Your task to perform on an android device: Clear the cart on walmart. Add razer deathadder to the cart on walmart, then select checkout. Image 0: 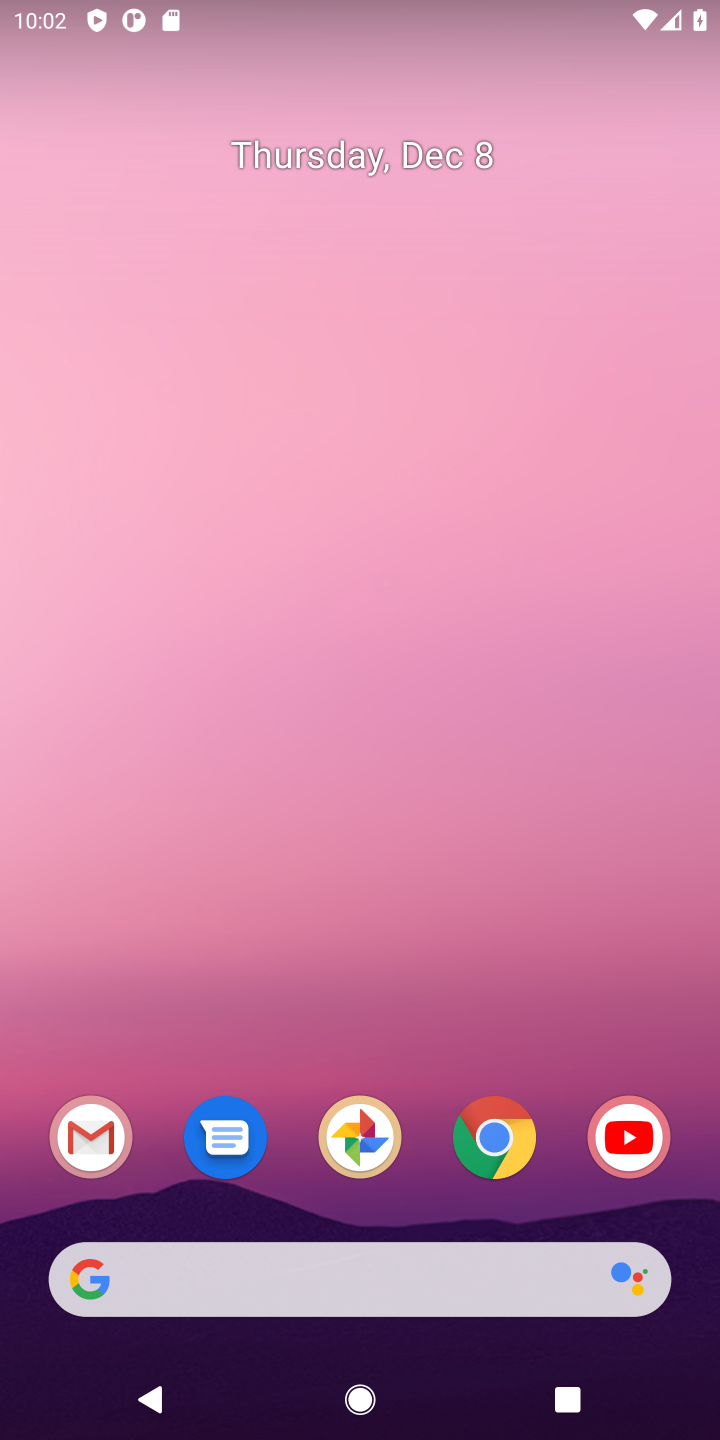
Step 0: click (494, 1135)
Your task to perform on an android device: Clear the cart on walmart. Add razer deathadder to the cart on walmart, then select checkout. Image 1: 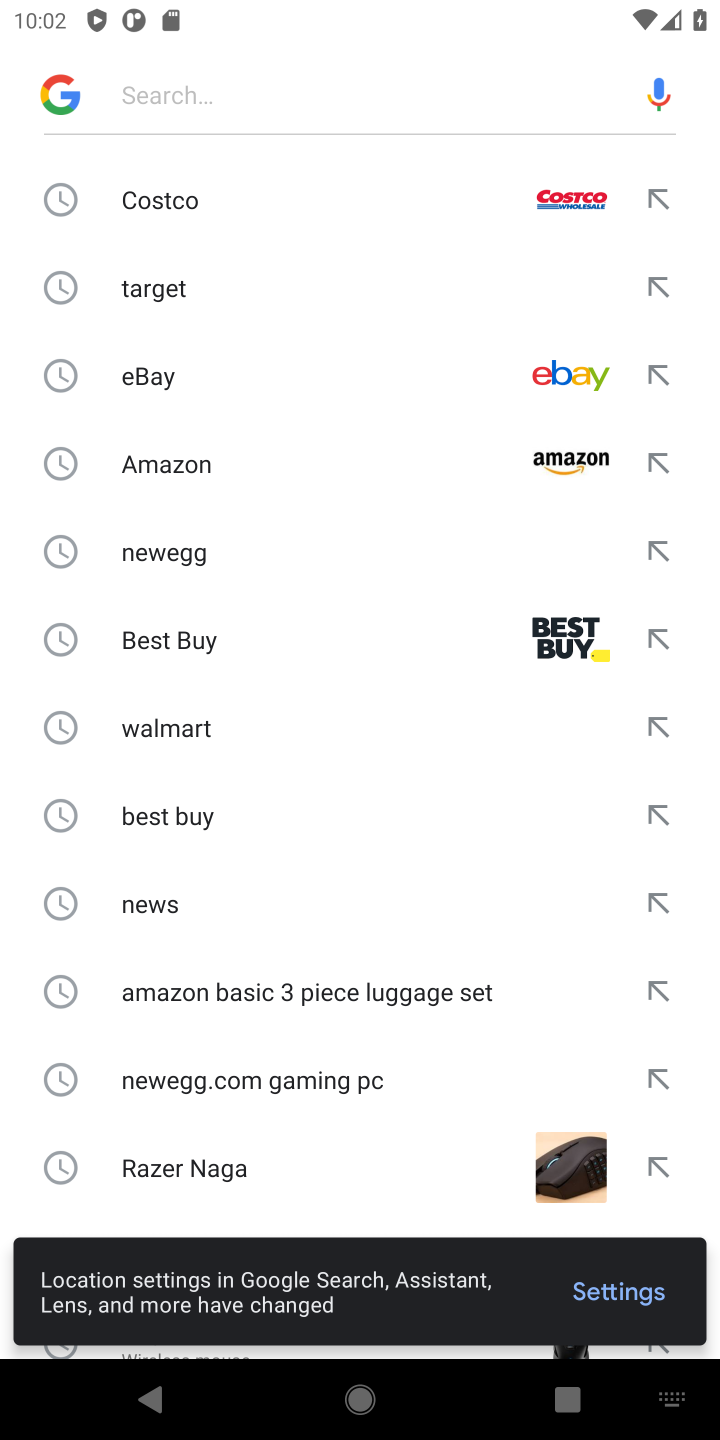
Step 1: click (183, 725)
Your task to perform on an android device: Clear the cart on walmart. Add razer deathadder to the cart on walmart, then select checkout. Image 2: 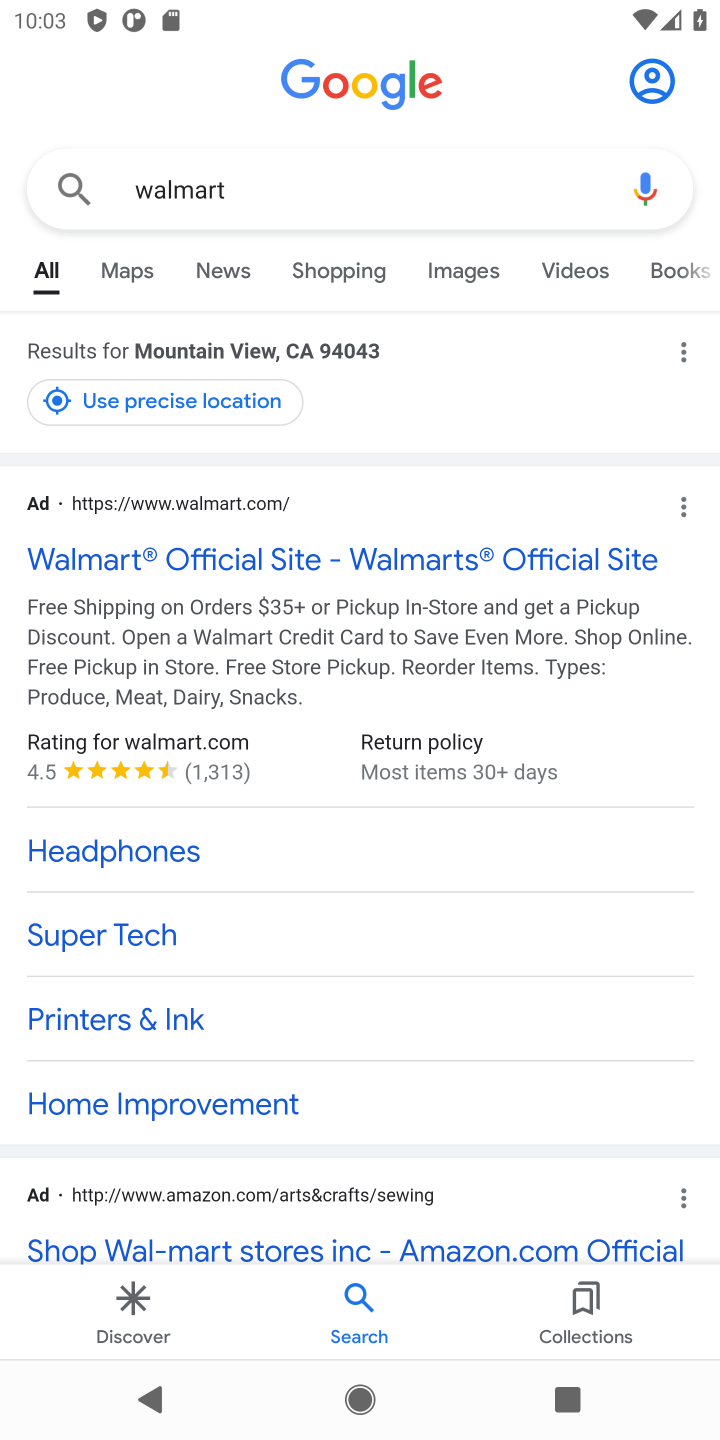
Step 2: click (146, 567)
Your task to perform on an android device: Clear the cart on walmart. Add razer deathadder to the cart on walmart, then select checkout. Image 3: 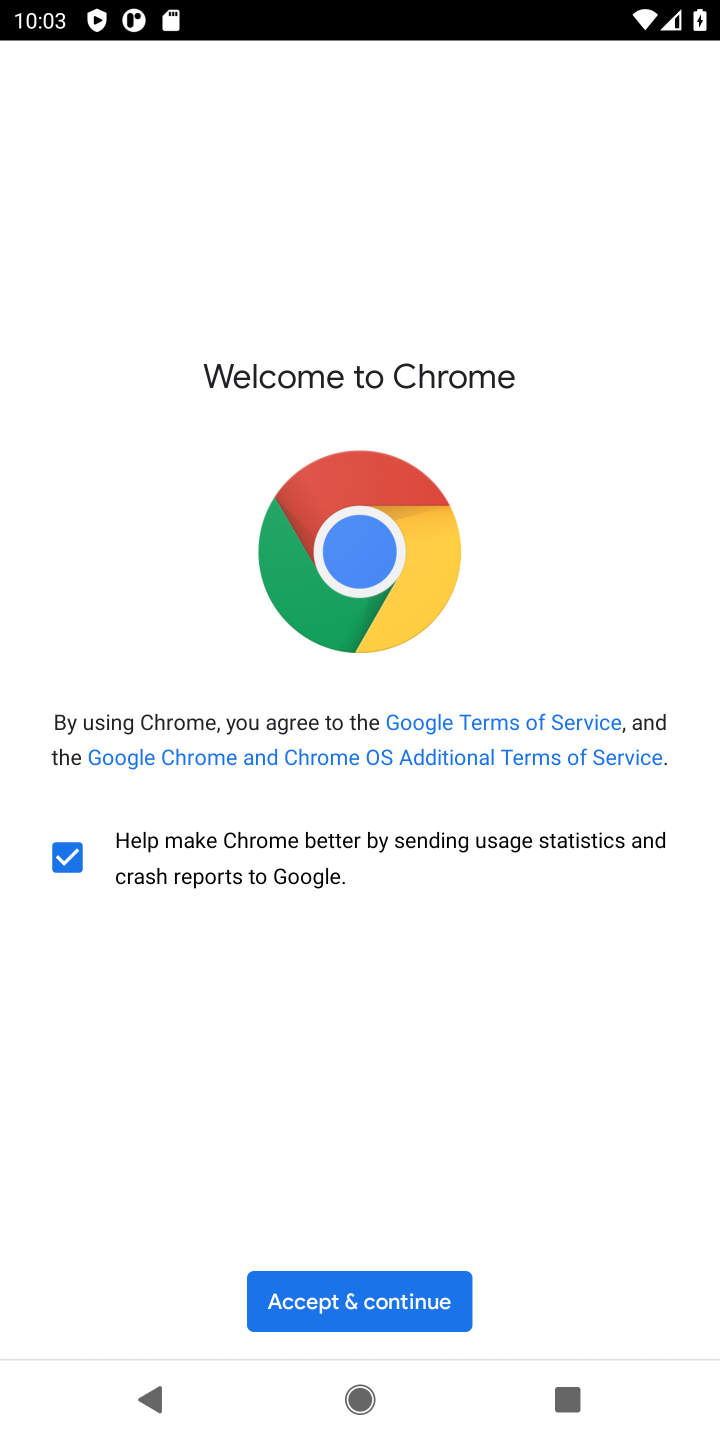
Step 3: click (311, 1298)
Your task to perform on an android device: Clear the cart on walmart. Add razer deathadder to the cart on walmart, then select checkout. Image 4: 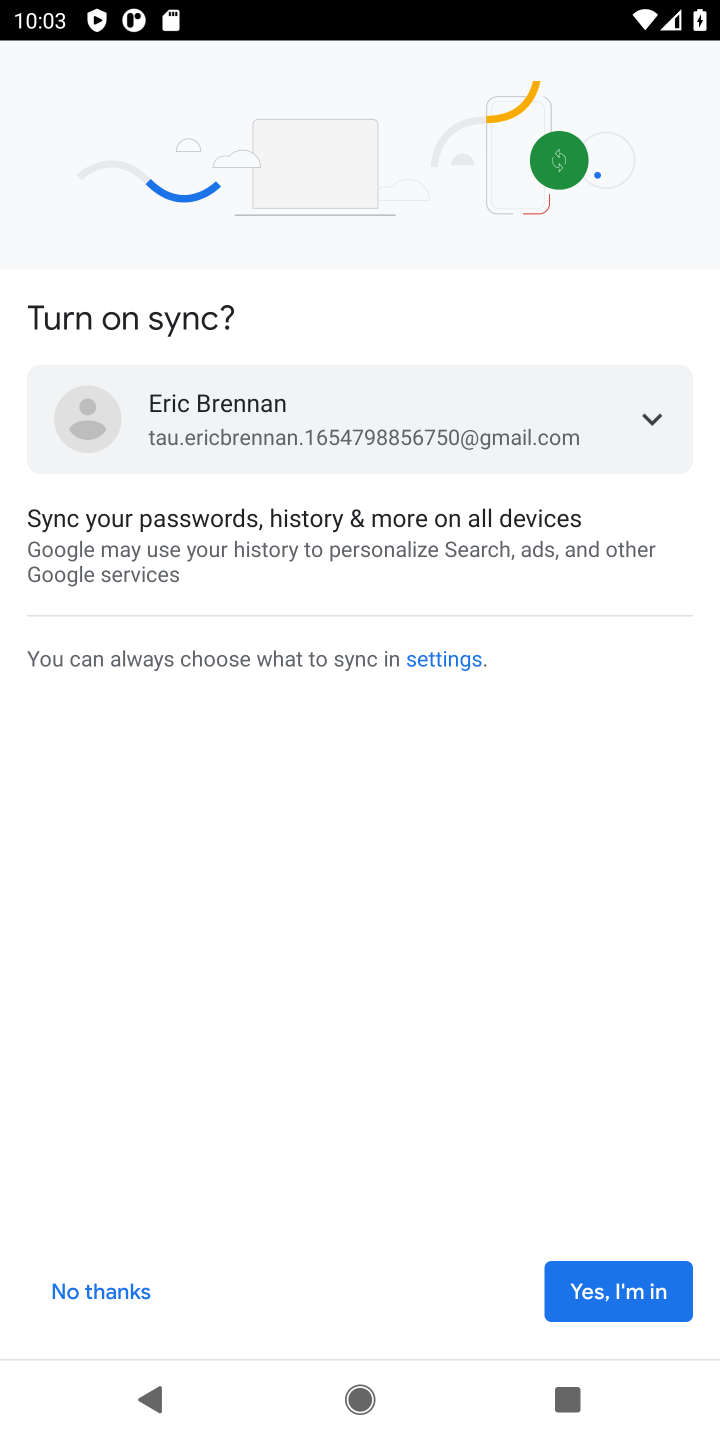
Step 4: click (642, 1299)
Your task to perform on an android device: Clear the cart on walmart. Add razer deathadder to the cart on walmart, then select checkout. Image 5: 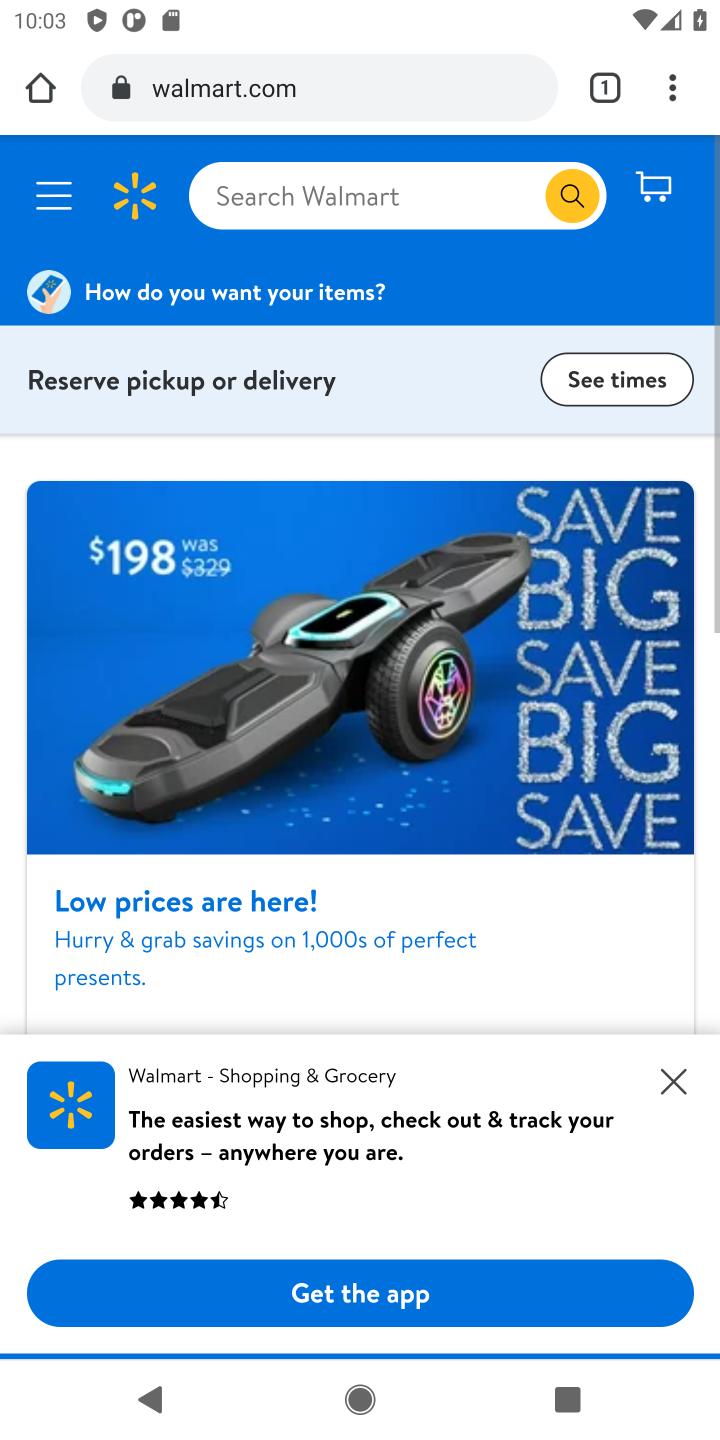
Step 5: click (656, 179)
Your task to perform on an android device: Clear the cart on walmart. Add razer deathadder to the cart on walmart, then select checkout. Image 6: 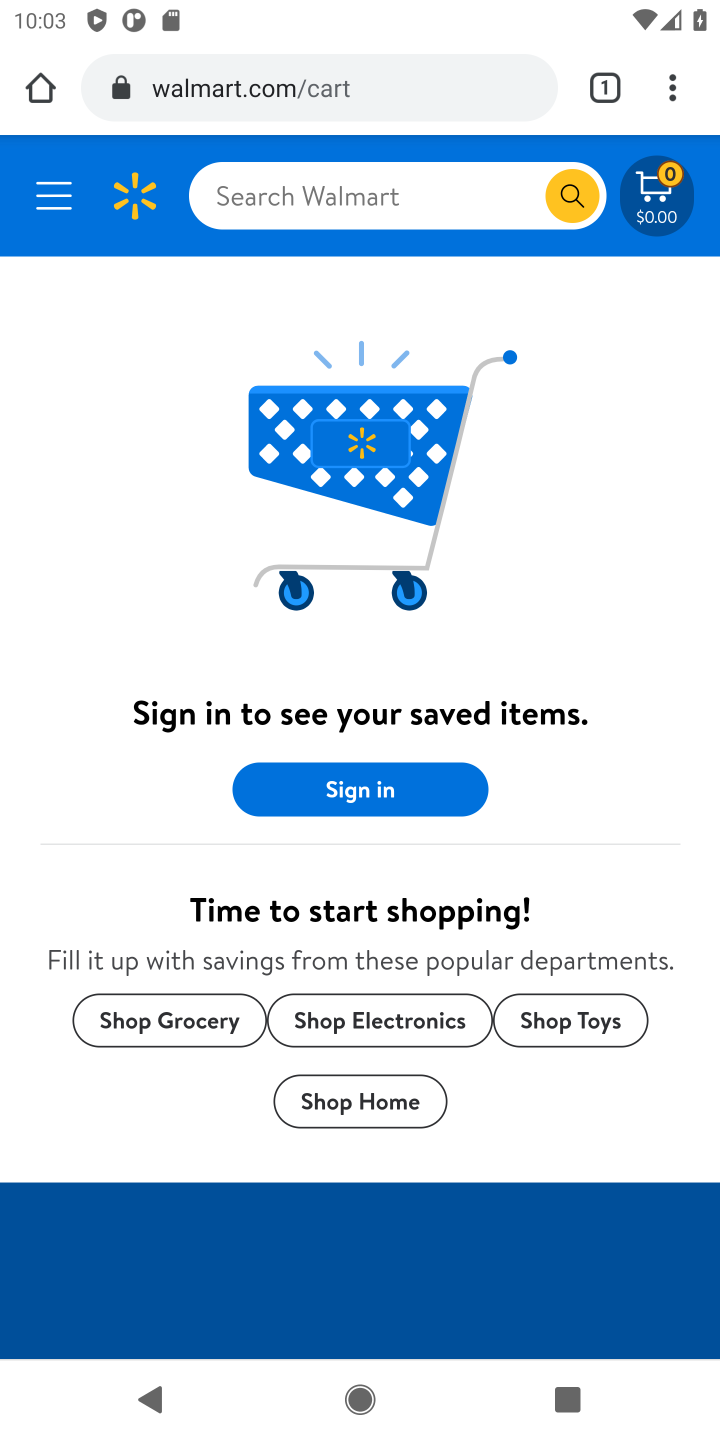
Step 6: click (428, 197)
Your task to perform on an android device: Clear the cart on walmart. Add razer deathadder to the cart on walmart, then select checkout. Image 7: 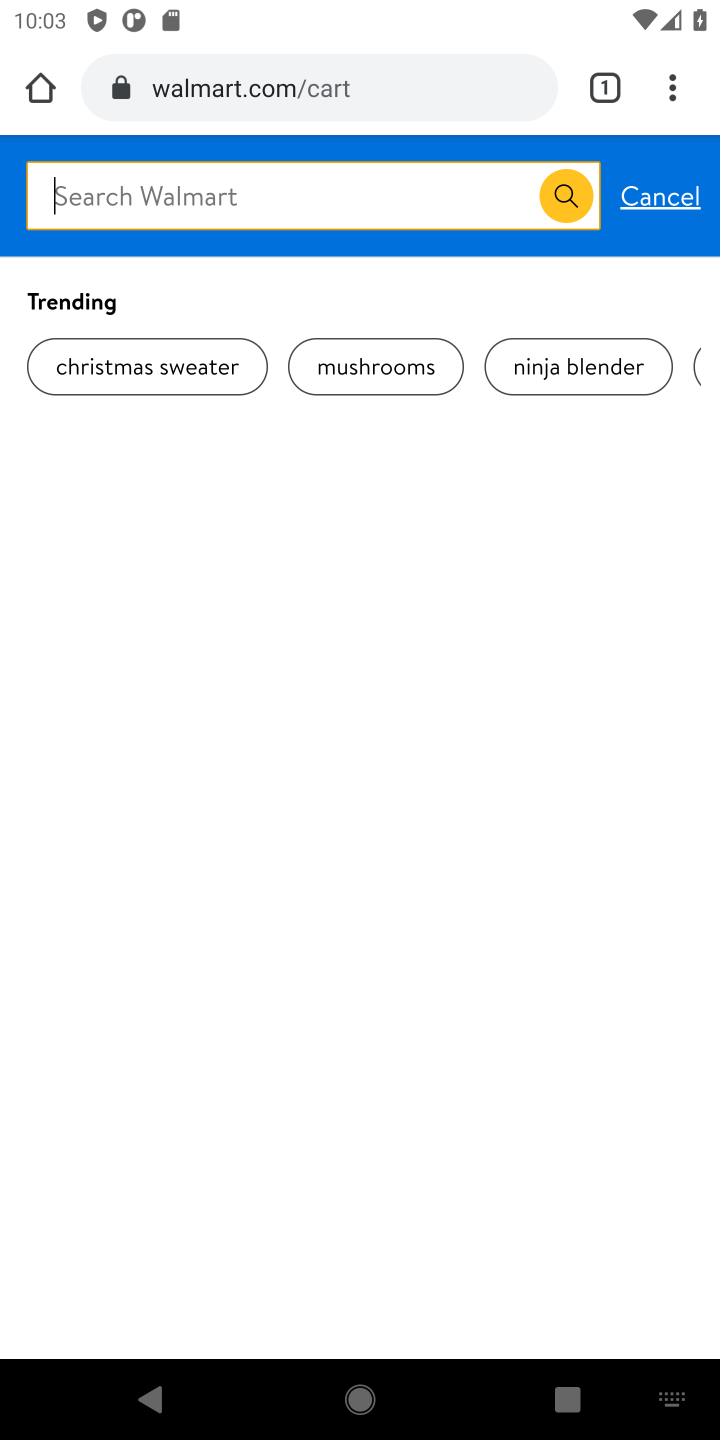
Step 7: type " razer deathadder"
Your task to perform on an android device: Clear the cart on walmart. Add razer deathadder to the cart on walmart, then select checkout. Image 8: 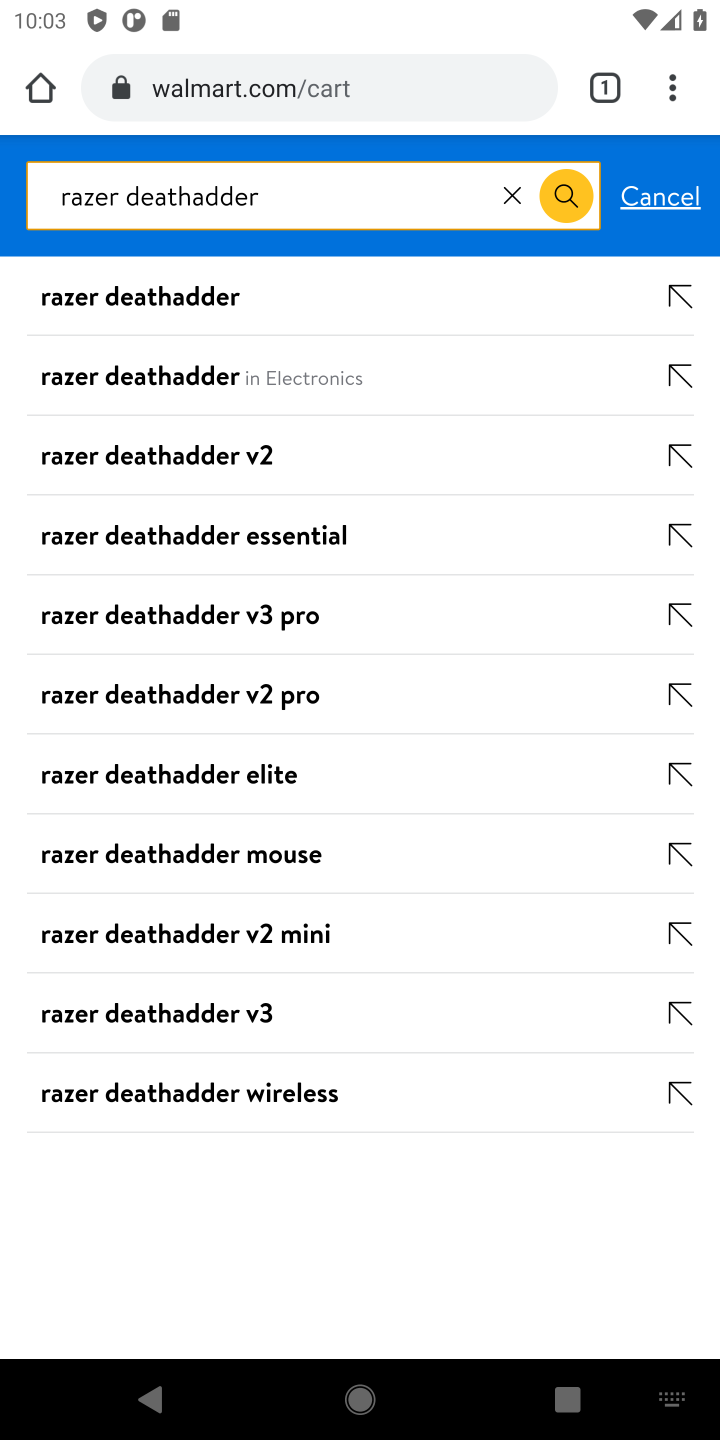
Step 8: click (277, 308)
Your task to perform on an android device: Clear the cart on walmart. Add razer deathadder to the cart on walmart, then select checkout. Image 9: 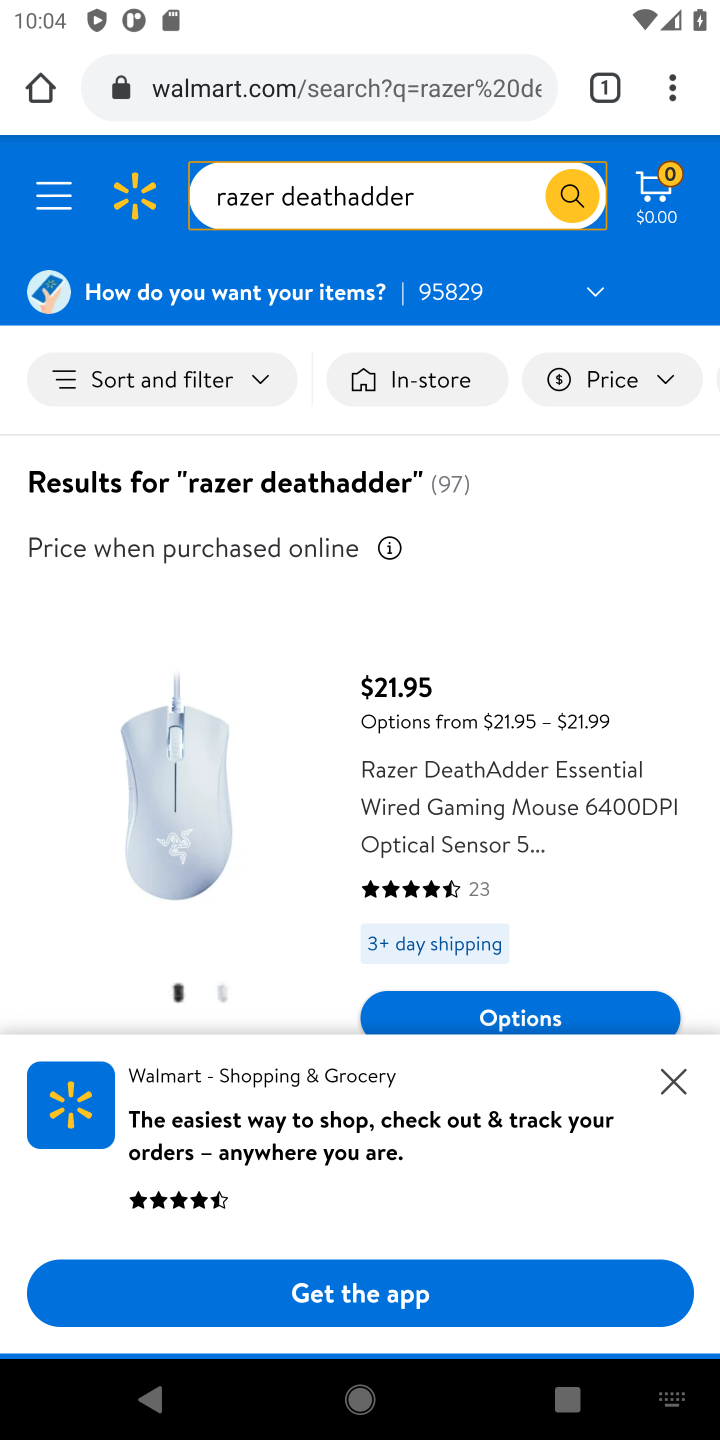
Step 9: click (574, 195)
Your task to perform on an android device: Clear the cart on walmart. Add razer deathadder to the cart on walmart, then select checkout. Image 10: 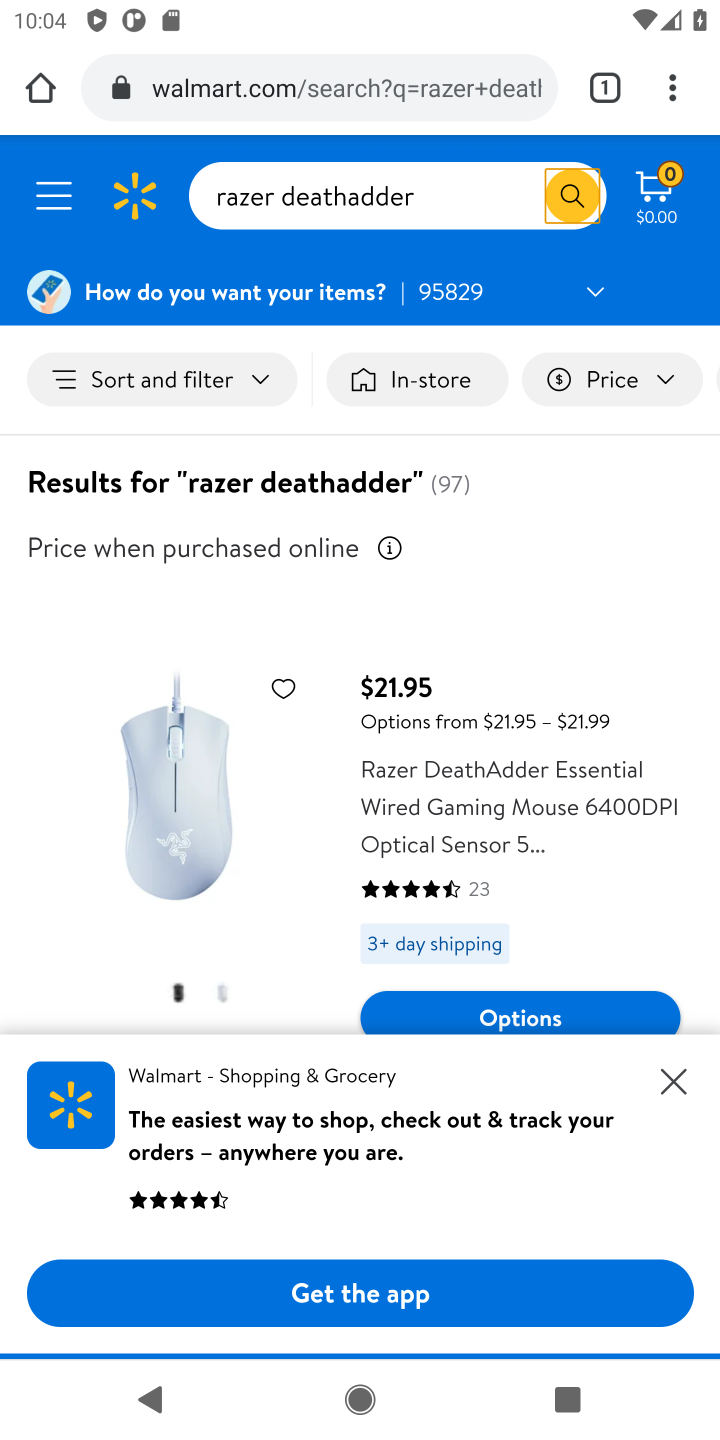
Step 10: click (668, 1085)
Your task to perform on an android device: Clear the cart on walmart. Add razer deathadder to the cart on walmart, then select checkout. Image 11: 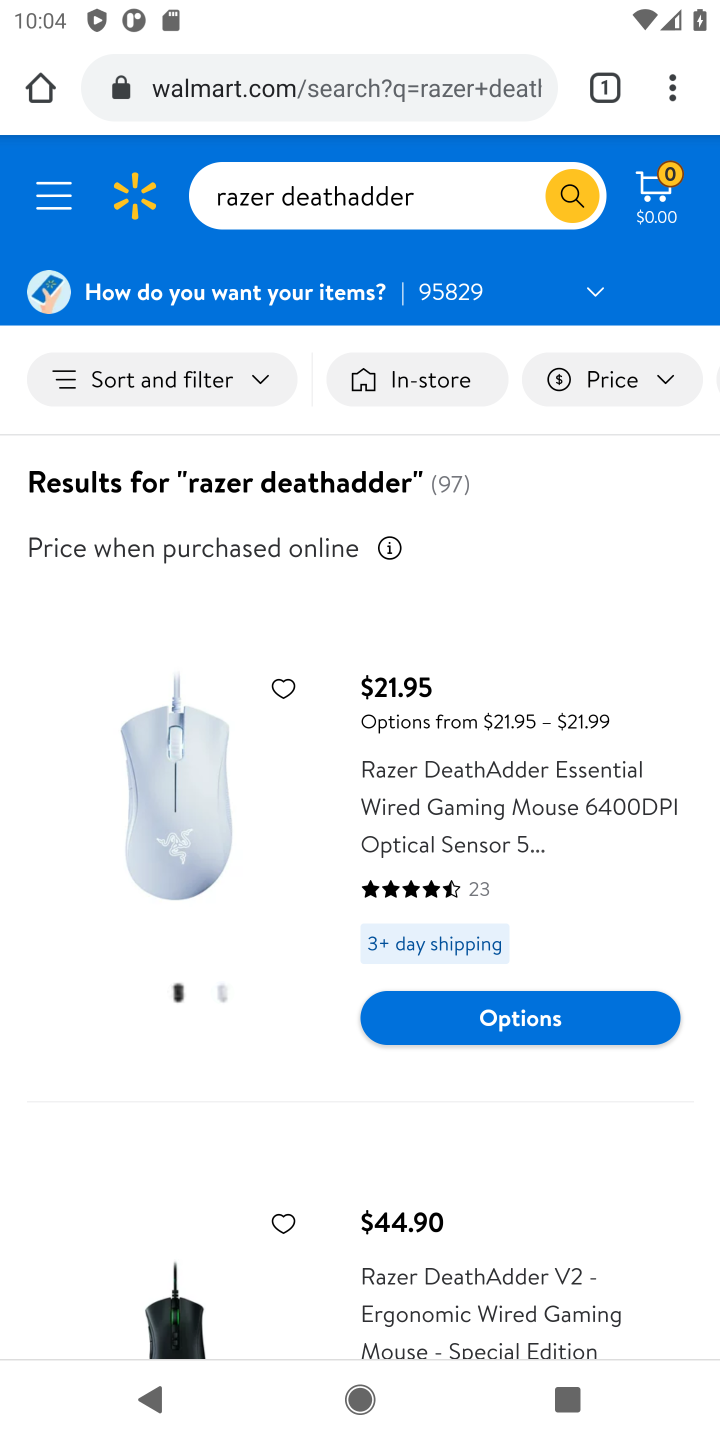
Step 11: click (600, 872)
Your task to perform on an android device: Clear the cart on walmart. Add razer deathadder to the cart on walmart, then select checkout. Image 12: 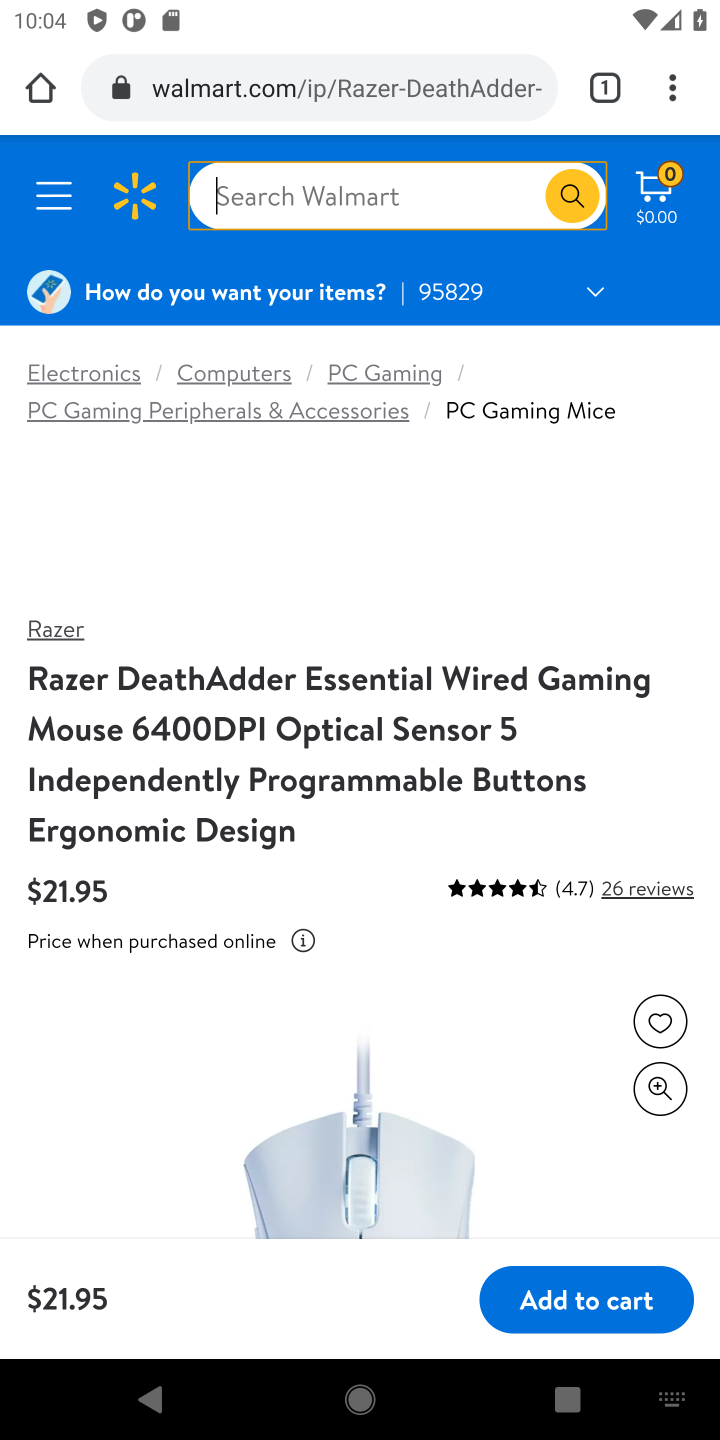
Step 12: click (554, 1300)
Your task to perform on an android device: Clear the cart on walmart. Add razer deathadder to the cart on walmart, then select checkout. Image 13: 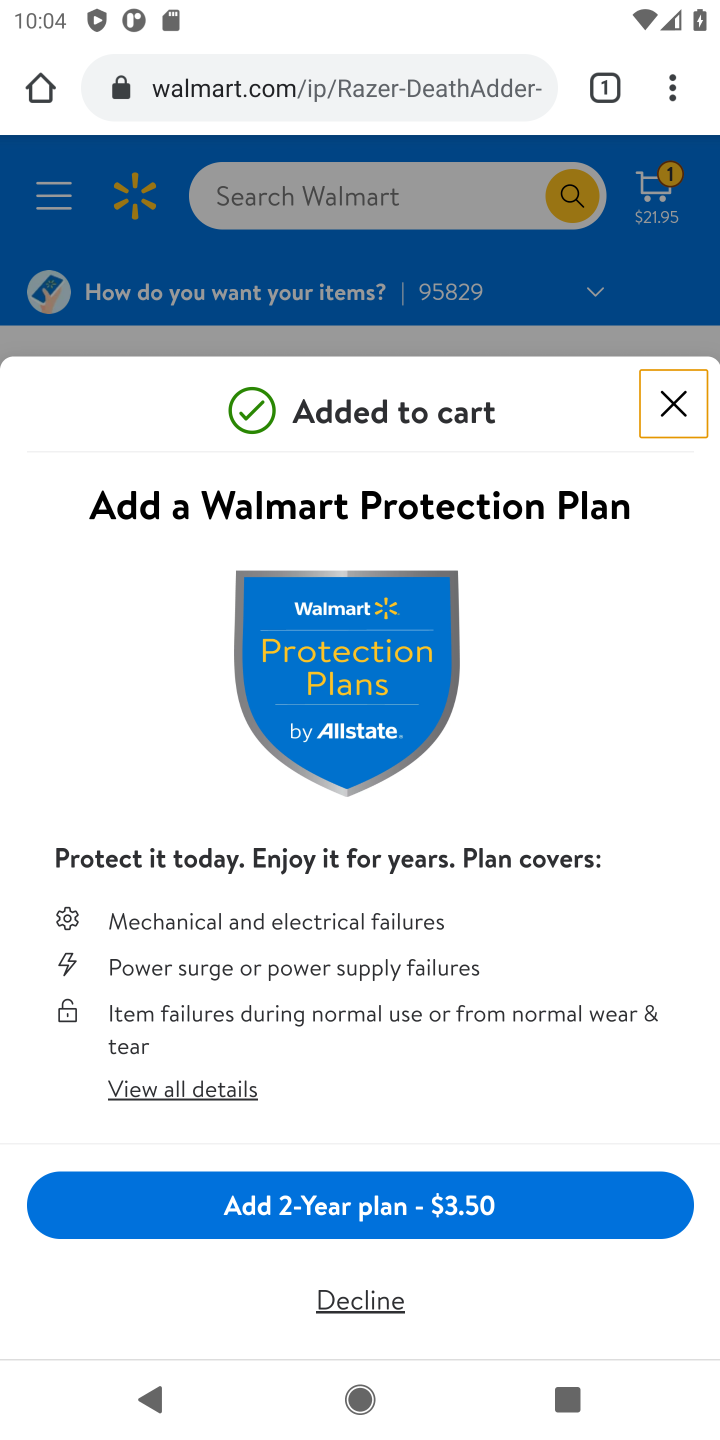
Step 13: click (345, 1304)
Your task to perform on an android device: Clear the cart on walmart. Add razer deathadder to the cart on walmart, then select checkout. Image 14: 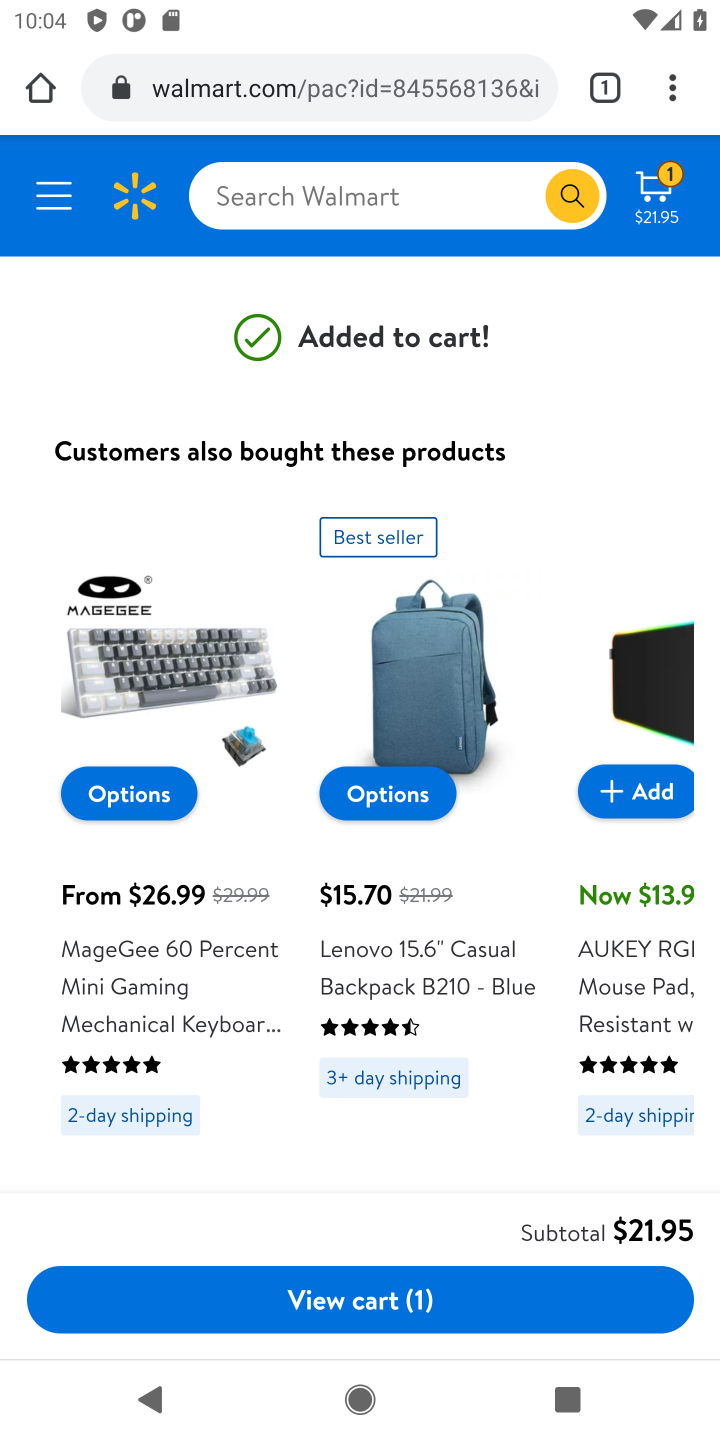
Step 14: click (653, 185)
Your task to perform on an android device: Clear the cart on walmart. Add razer deathadder to the cart on walmart, then select checkout. Image 15: 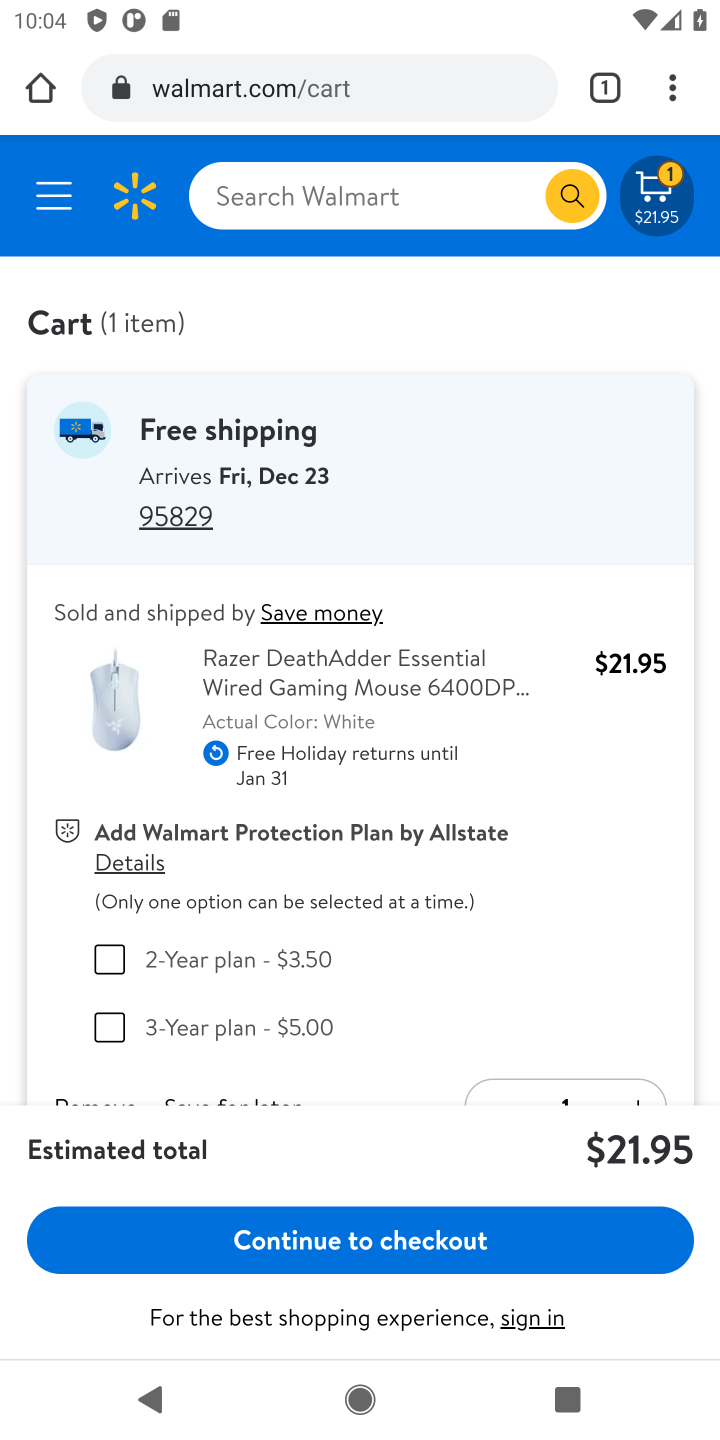
Step 15: click (401, 1245)
Your task to perform on an android device: Clear the cart on walmart. Add razer deathadder to the cart on walmart, then select checkout. Image 16: 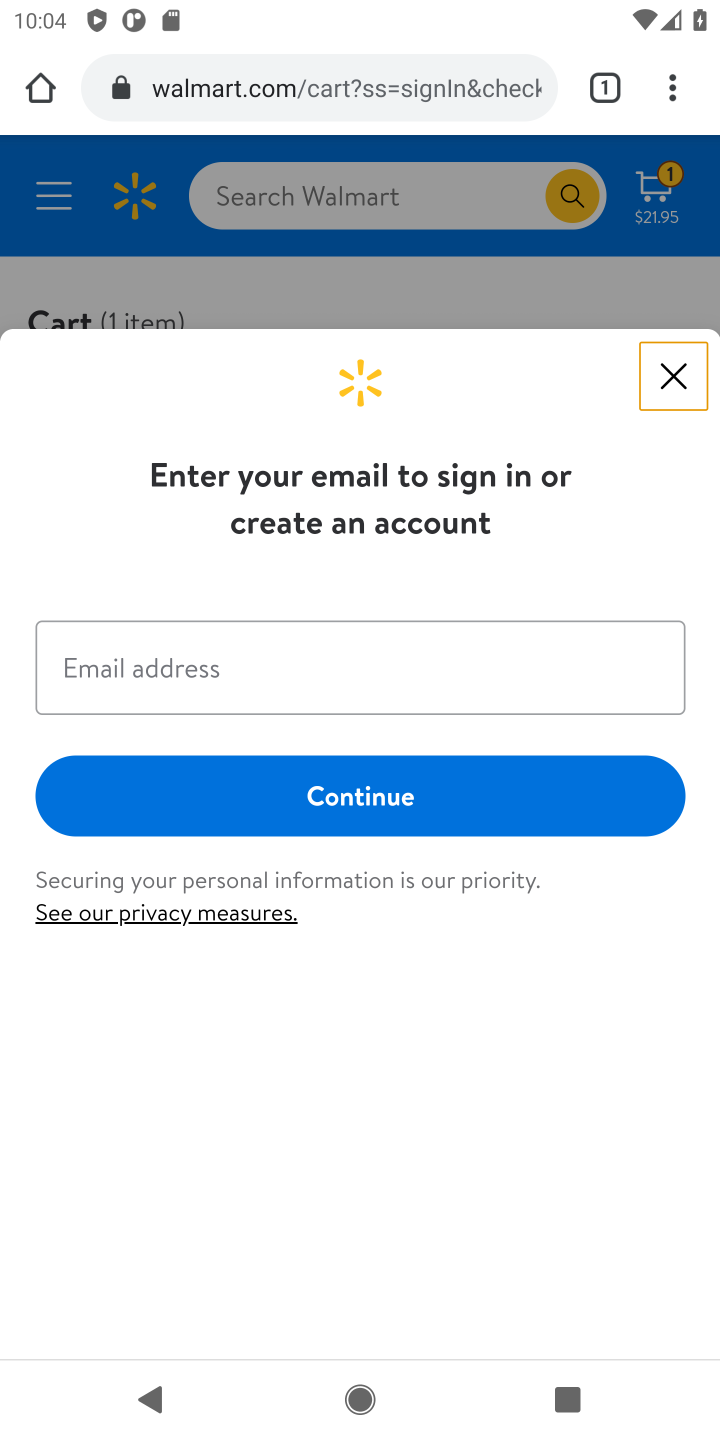
Step 16: task complete